Your task to perform on an android device: Set an alarm for 7am Image 0: 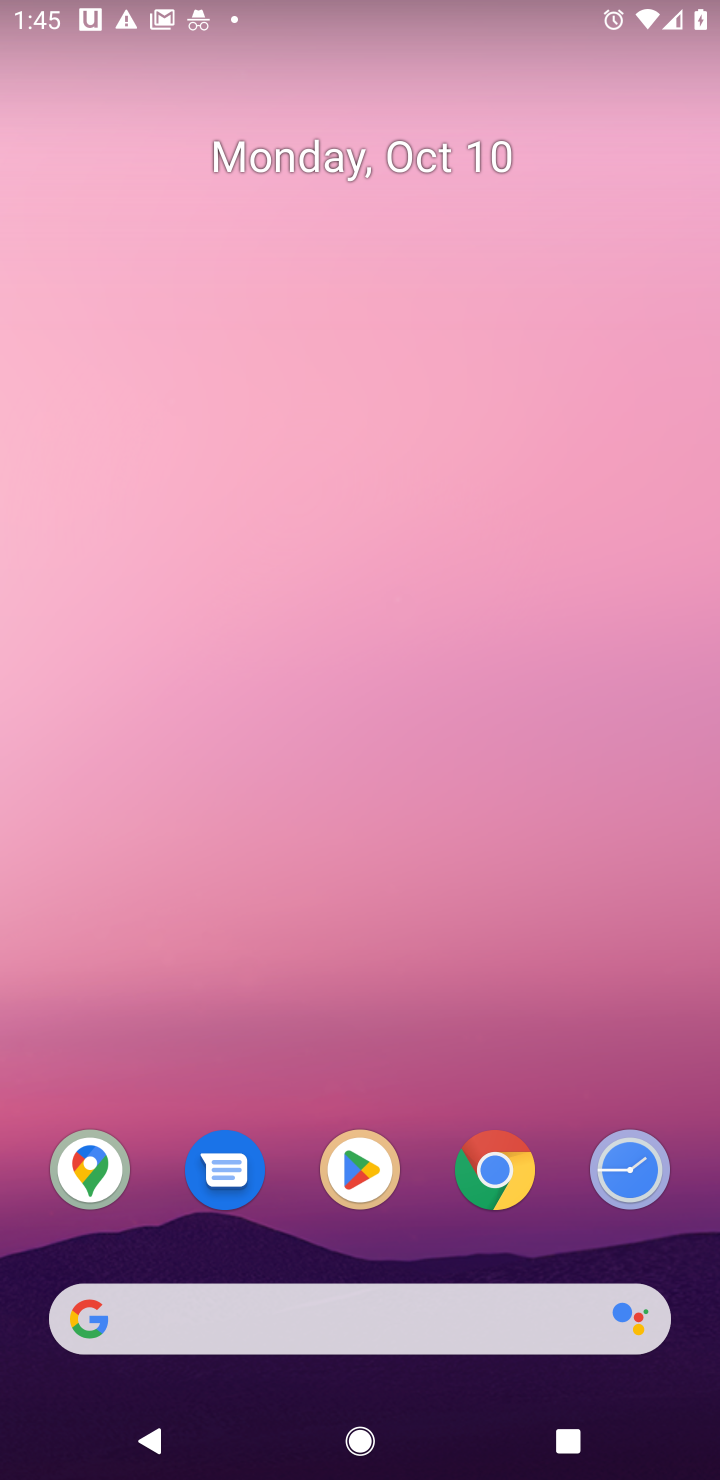
Step 0: drag from (460, 985) to (337, 222)
Your task to perform on an android device: Set an alarm for 7am Image 1: 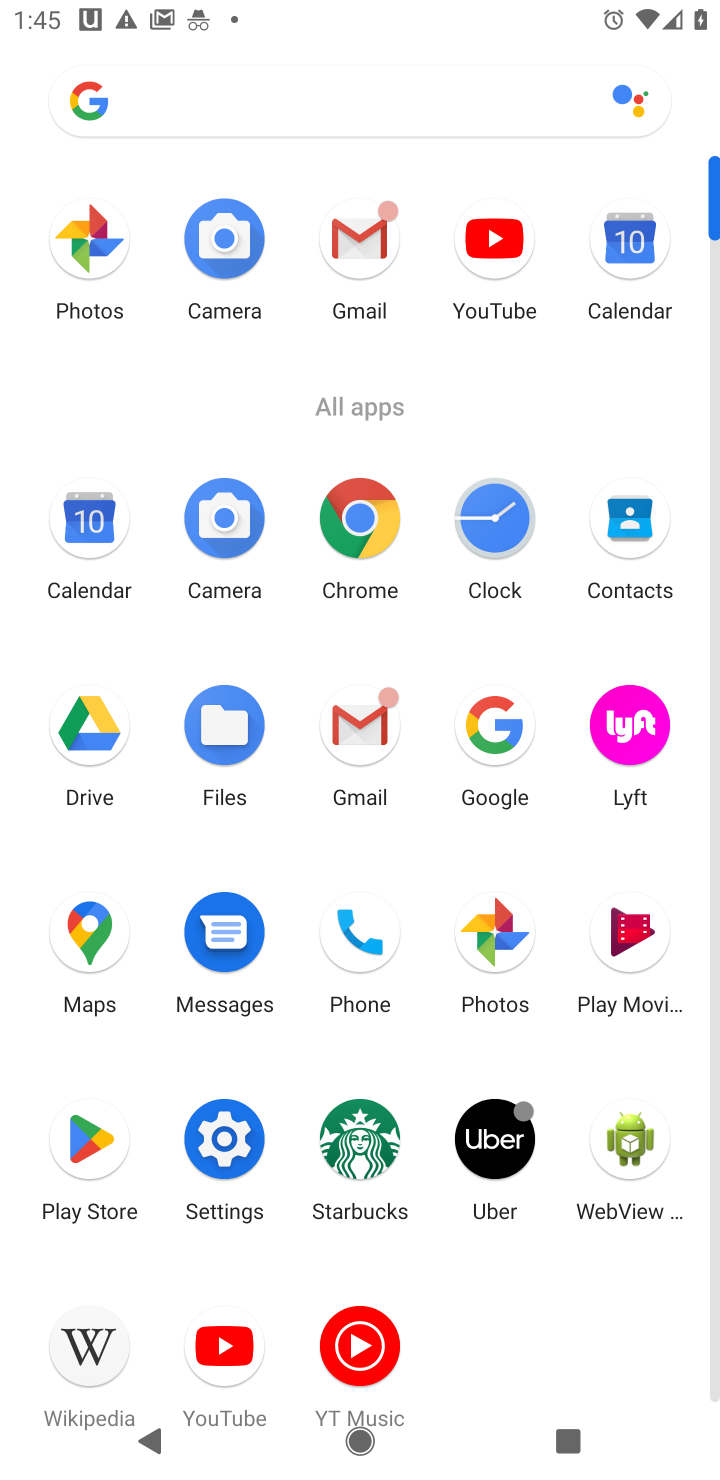
Step 1: click (480, 557)
Your task to perform on an android device: Set an alarm for 7am Image 2: 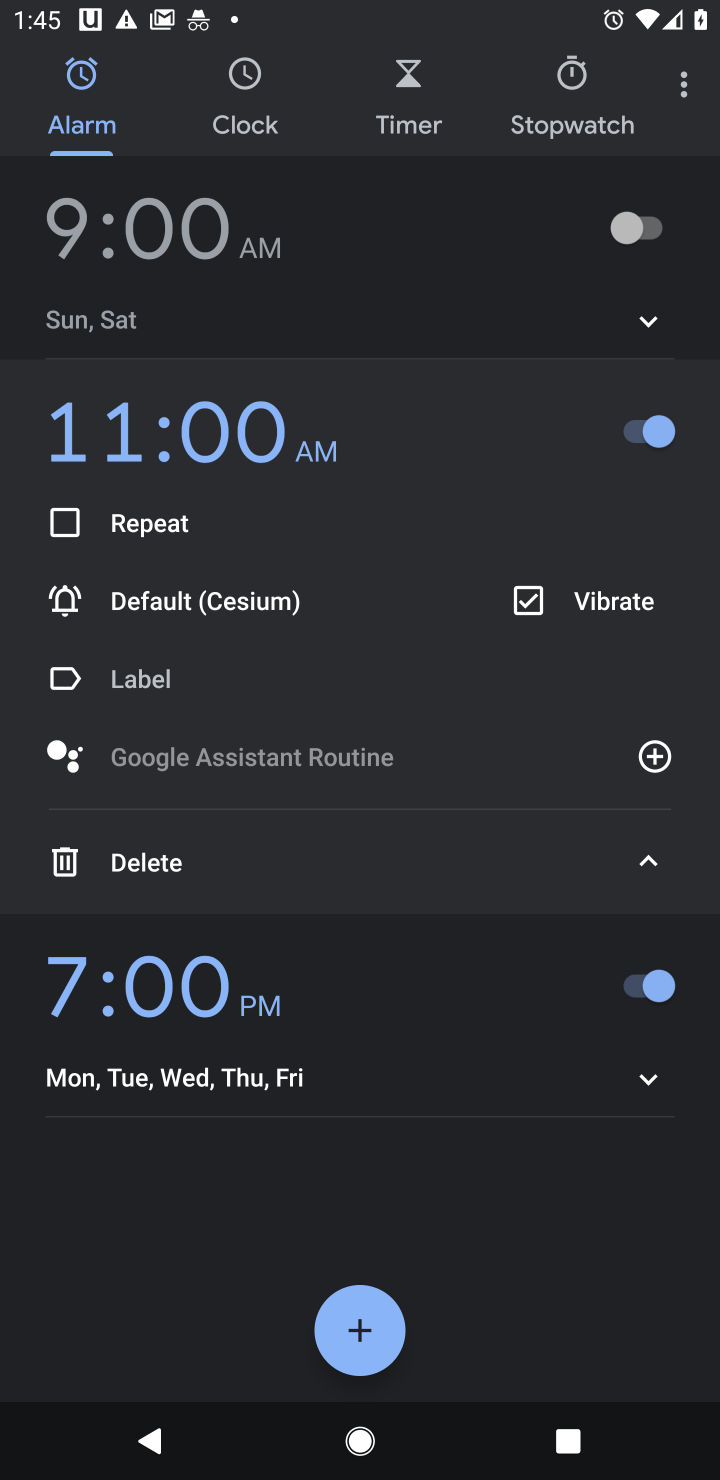
Step 2: click (245, 1009)
Your task to perform on an android device: Set an alarm for 7am Image 3: 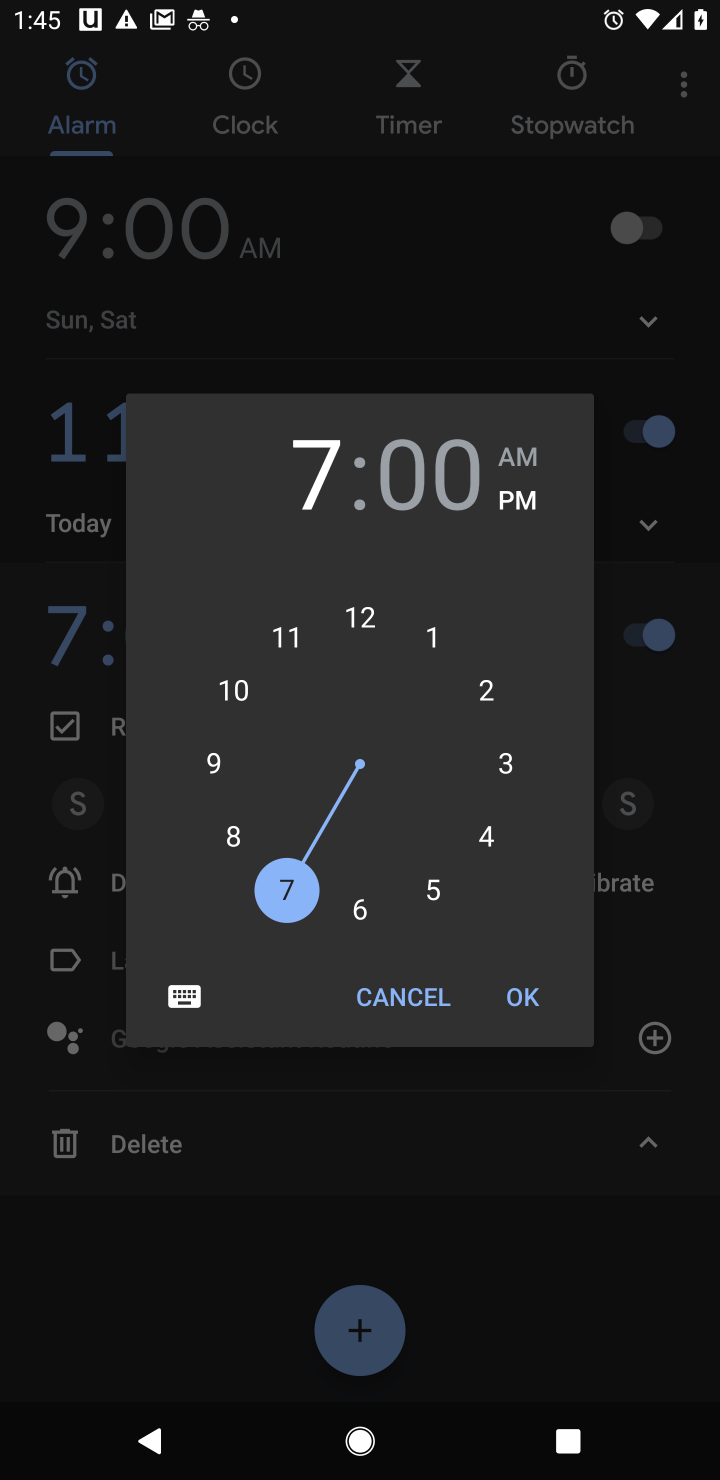
Step 3: click (528, 459)
Your task to perform on an android device: Set an alarm for 7am Image 4: 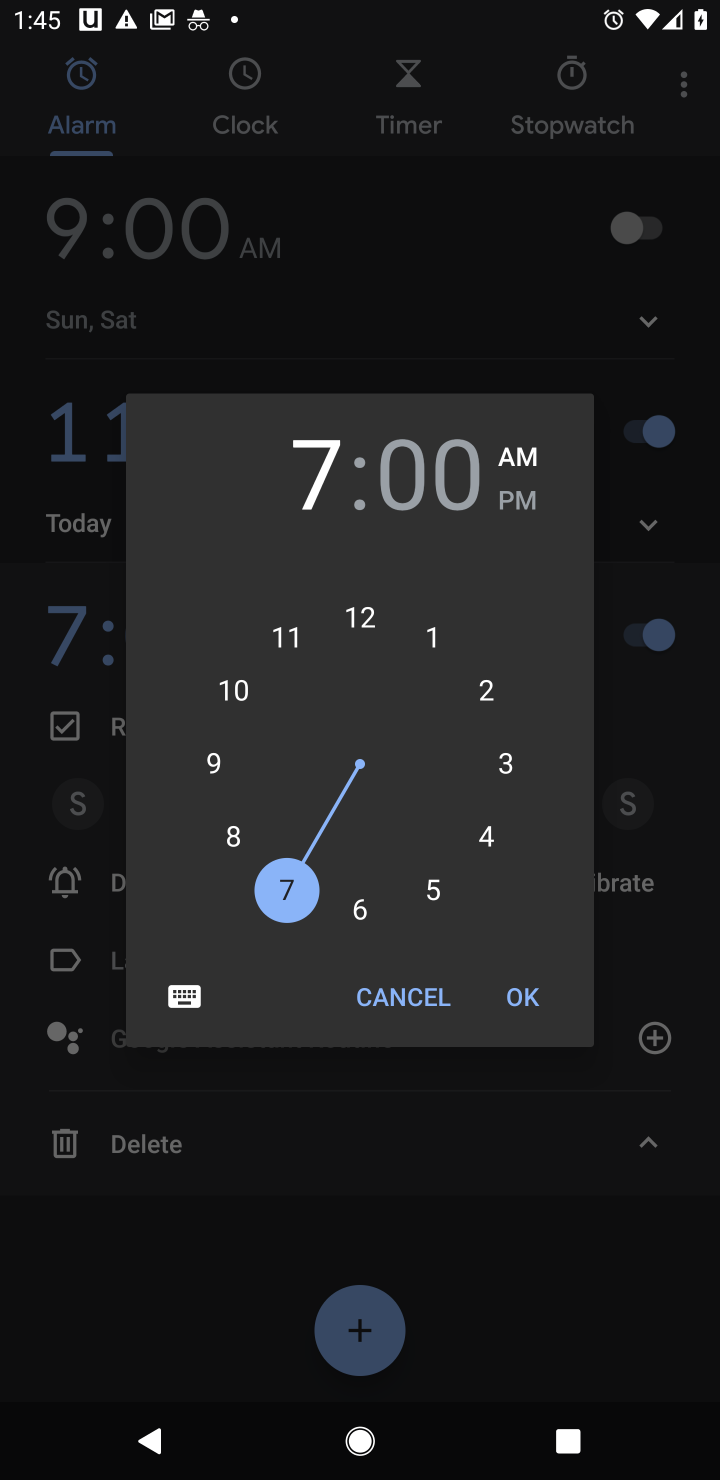
Step 4: click (514, 984)
Your task to perform on an android device: Set an alarm for 7am Image 5: 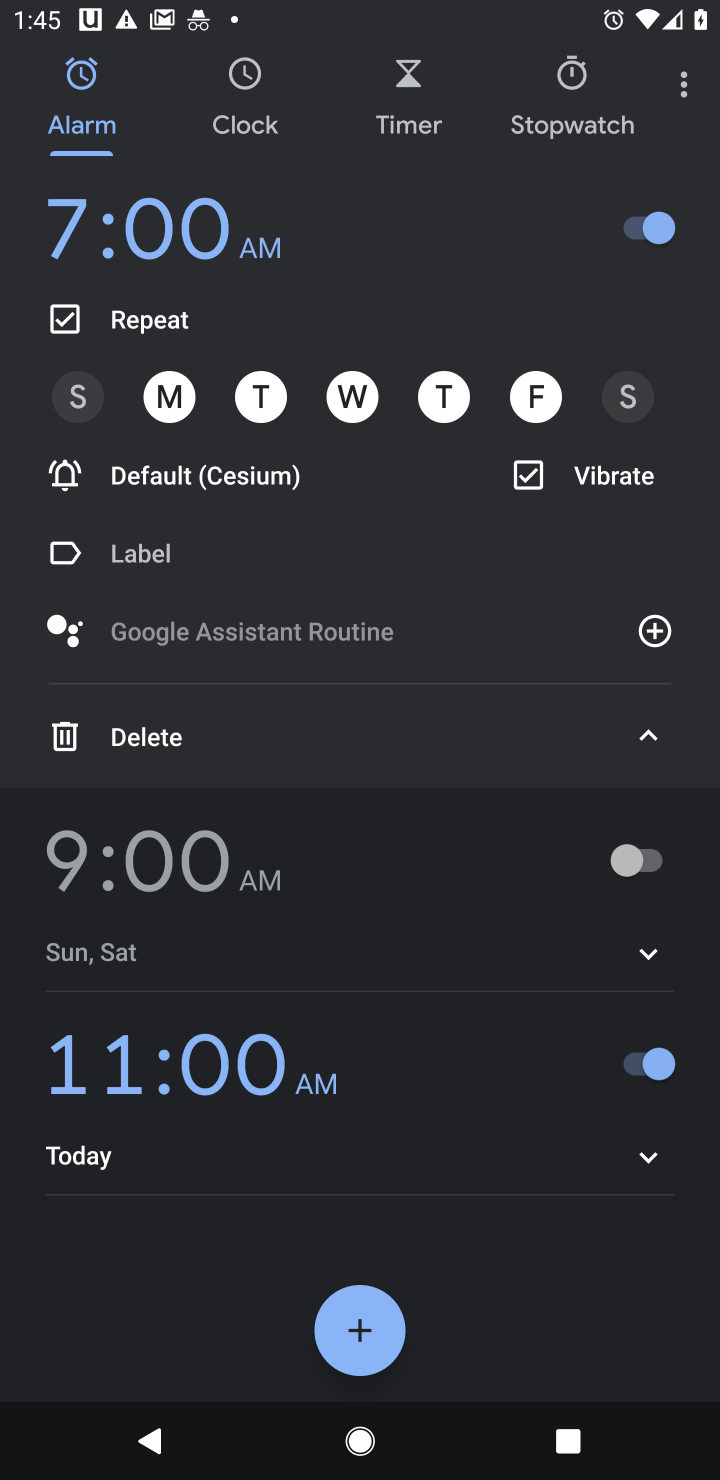
Step 5: task complete